Your task to perform on an android device: add a contact Image 0: 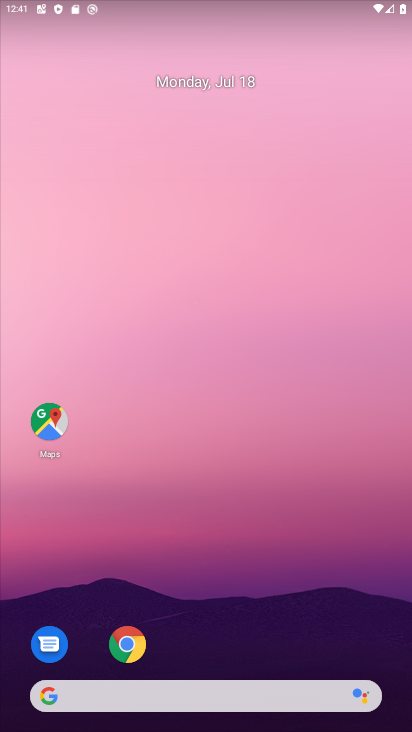
Step 0: press home button
Your task to perform on an android device: add a contact Image 1: 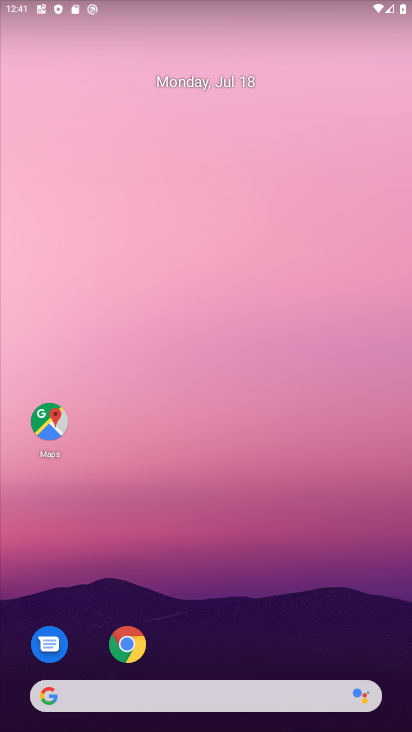
Step 1: drag from (223, 589) to (218, 309)
Your task to perform on an android device: add a contact Image 2: 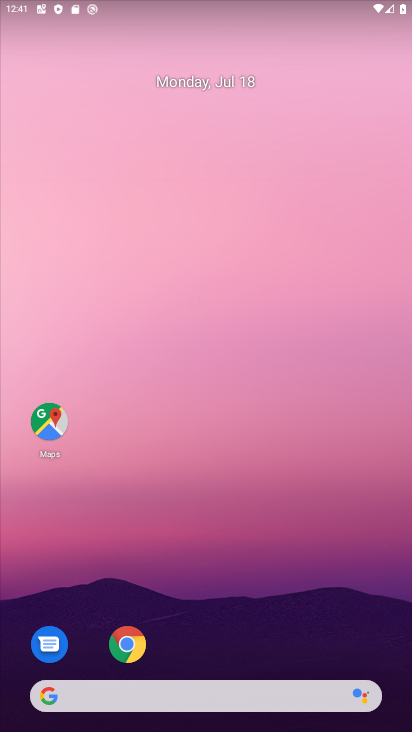
Step 2: drag from (260, 568) to (243, 109)
Your task to perform on an android device: add a contact Image 3: 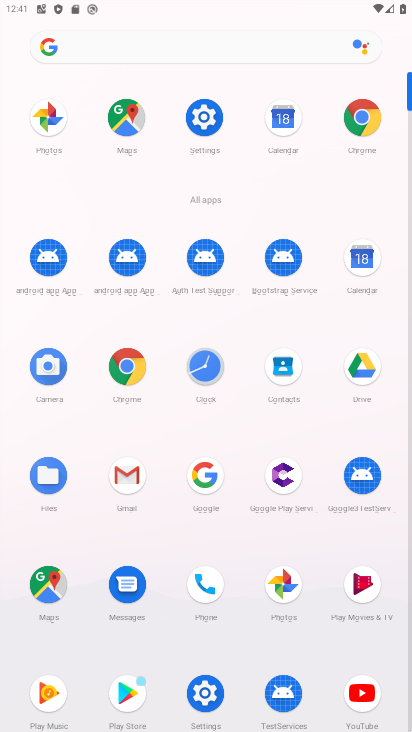
Step 3: click (274, 385)
Your task to perform on an android device: add a contact Image 4: 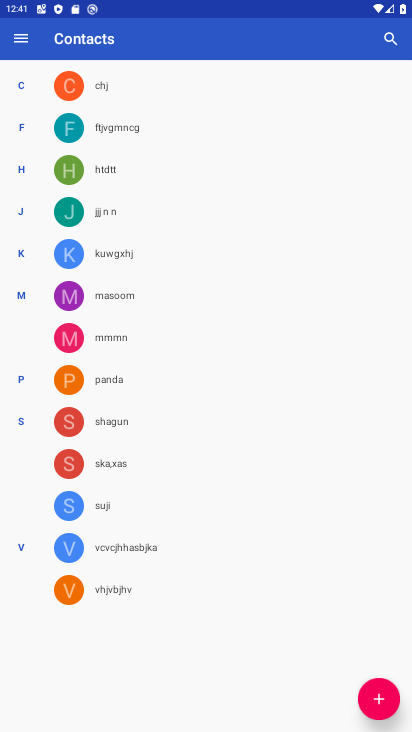
Step 4: click (372, 699)
Your task to perform on an android device: add a contact Image 5: 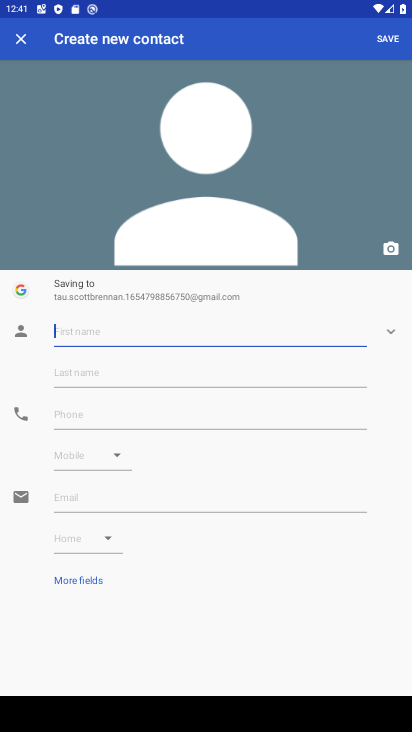
Step 5: type "vmnbvj"
Your task to perform on an android device: add a contact Image 6: 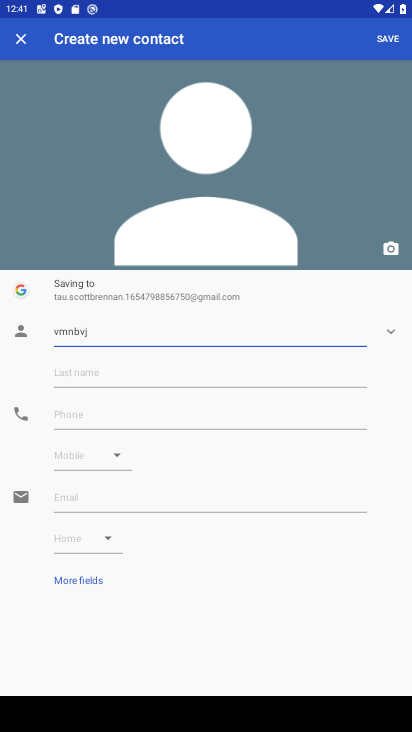
Step 6: click (119, 405)
Your task to perform on an android device: add a contact Image 7: 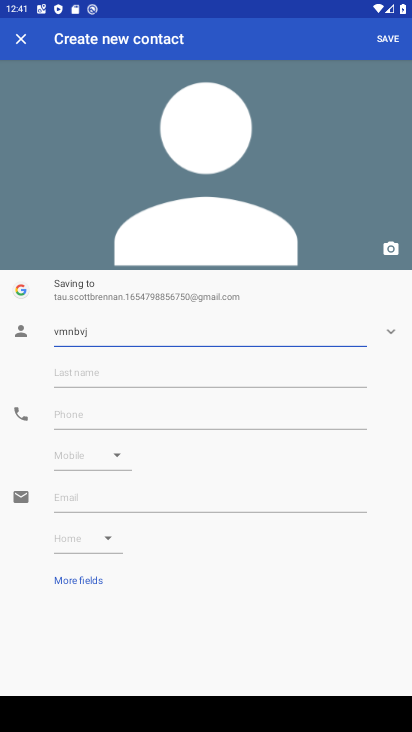
Step 7: click (119, 405)
Your task to perform on an android device: add a contact Image 8: 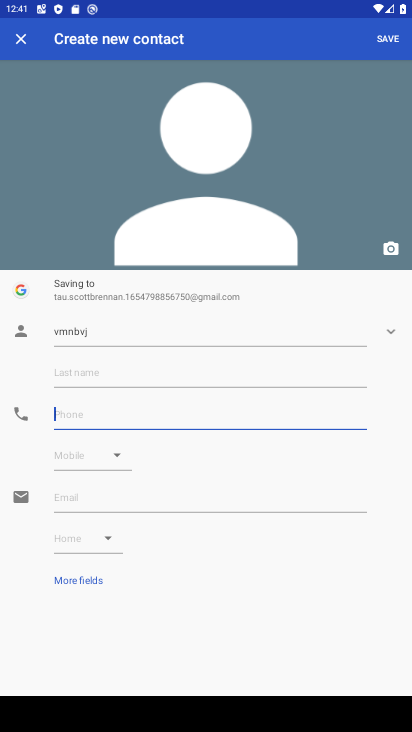
Step 8: click (119, 405)
Your task to perform on an android device: add a contact Image 9: 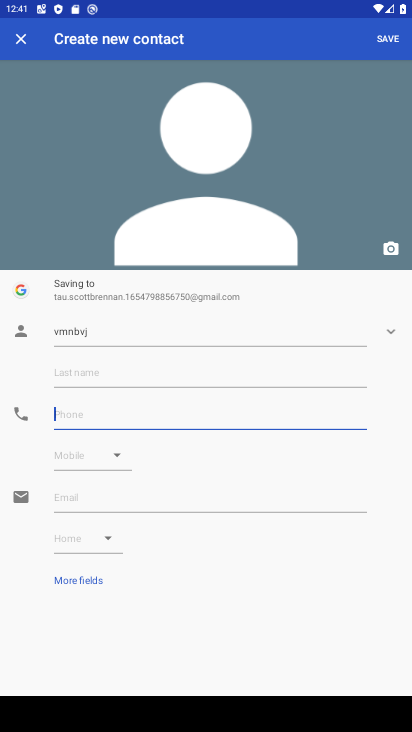
Step 9: click (119, 405)
Your task to perform on an android device: add a contact Image 10: 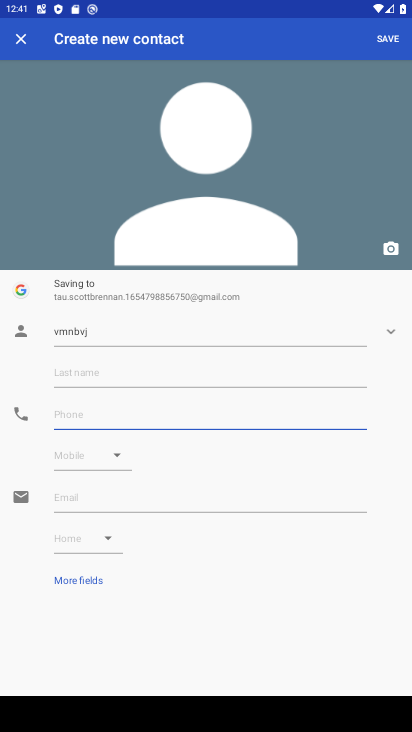
Step 10: type "z98767"
Your task to perform on an android device: add a contact Image 11: 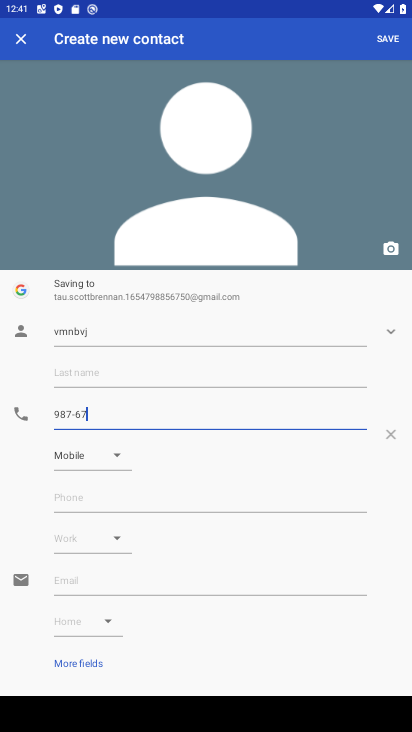
Step 11: click (371, 32)
Your task to perform on an android device: add a contact Image 12: 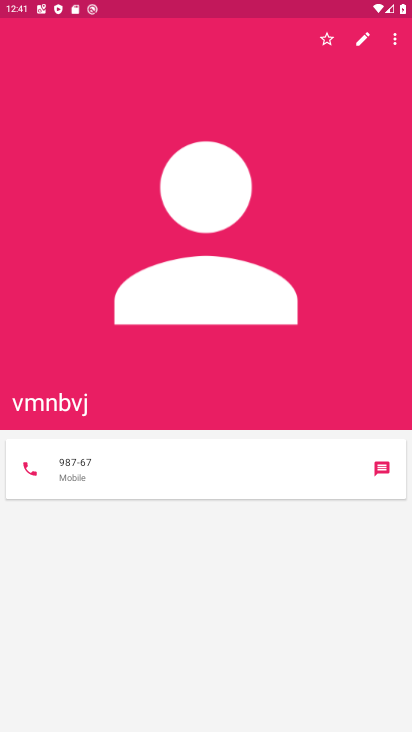
Step 12: task complete